Your task to perform on an android device: change keyboard looks Image 0: 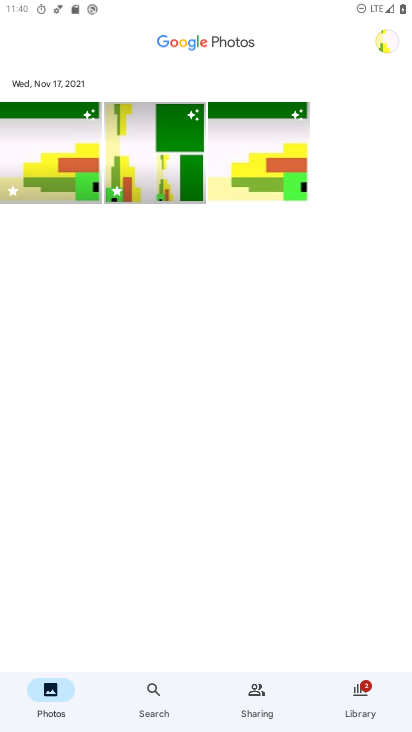
Step 0: press home button
Your task to perform on an android device: change keyboard looks Image 1: 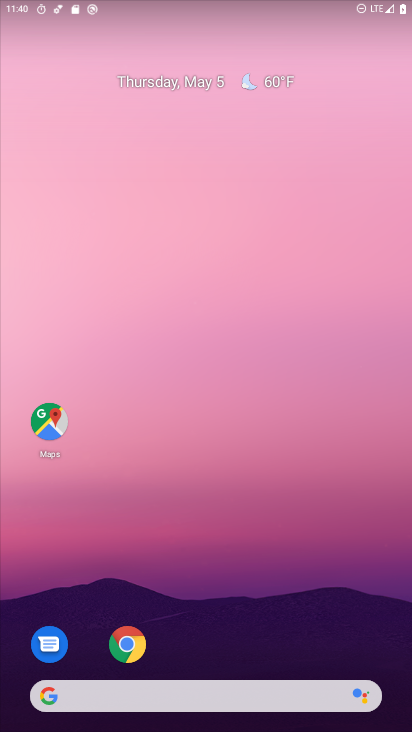
Step 1: drag from (338, 637) to (409, 102)
Your task to perform on an android device: change keyboard looks Image 2: 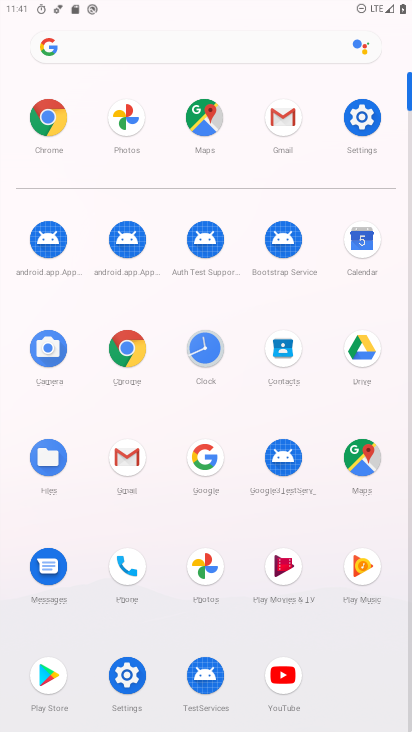
Step 2: click (125, 679)
Your task to perform on an android device: change keyboard looks Image 3: 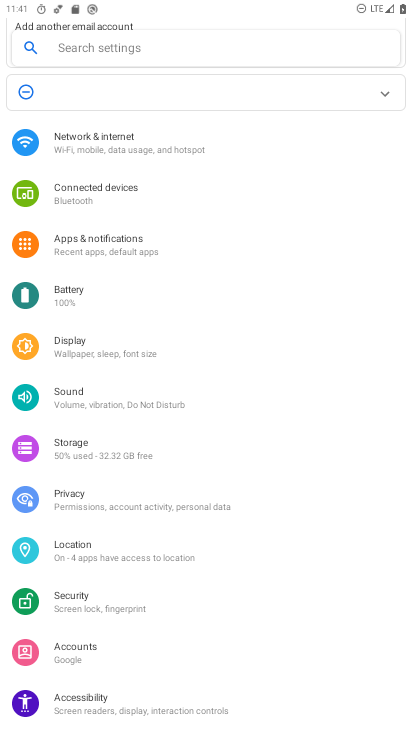
Step 3: drag from (129, 694) to (253, 259)
Your task to perform on an android device: change keyboard looks Image 4: 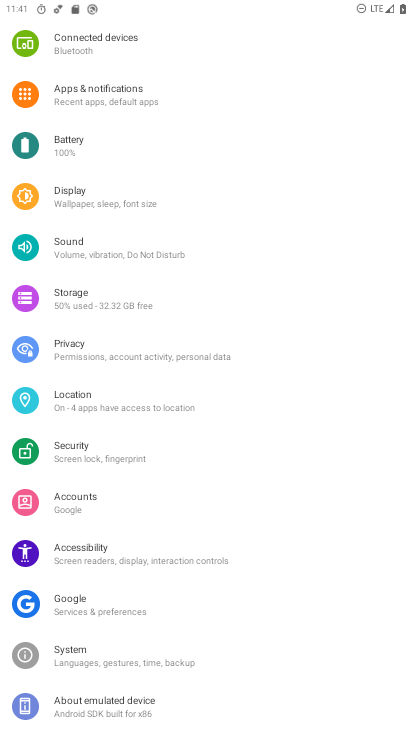
Step 4: click (142, 653)
Your task to perform on an android device: change keyboard looks Image 5: 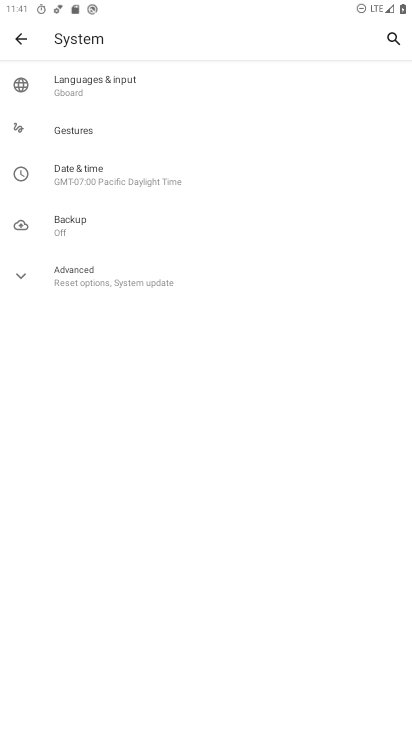
Step 5: click (164, 76)
Your task to perform on an android device: change keyboard looks Image 6: 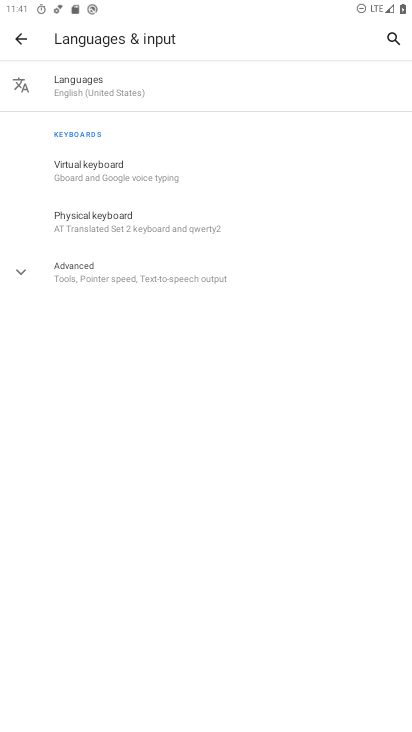
Step 6: click (125, 172)
Your task to perform on an android device: change keyboard looks Image 7: 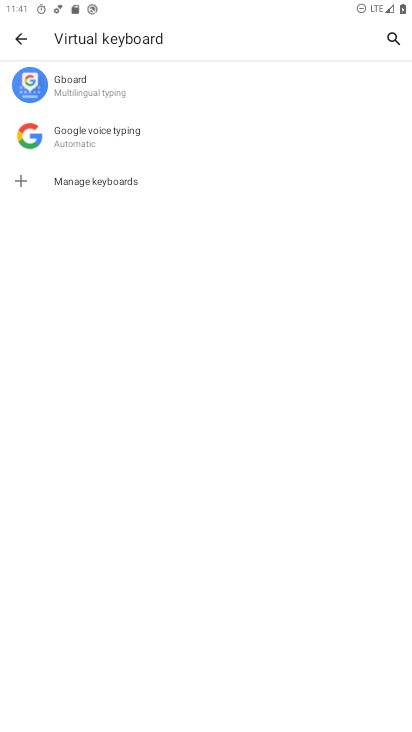
Step 7: click (106, 86)
Your task to perform on an android device: change keyboard looks Image 8: 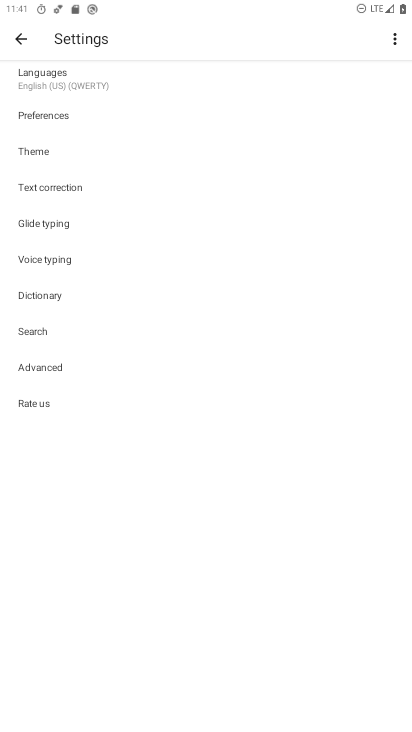
Step 8: click (72, 146)
Your task to perform on an android device: change keyboard looks Image 9: 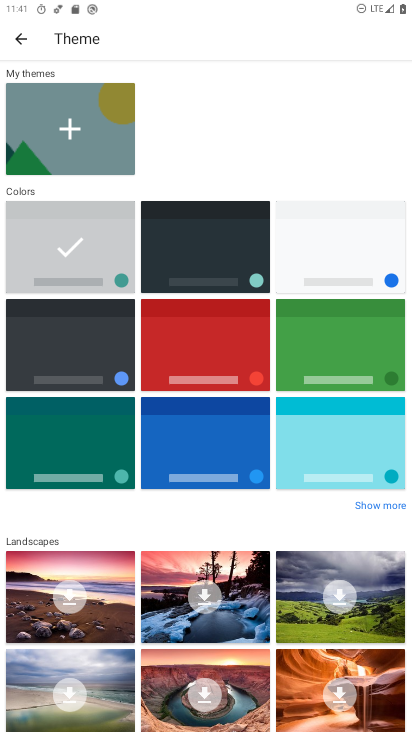
Step 9: click (197, 234)
Your task to perform on an android device: change keyboard looks Image 10: 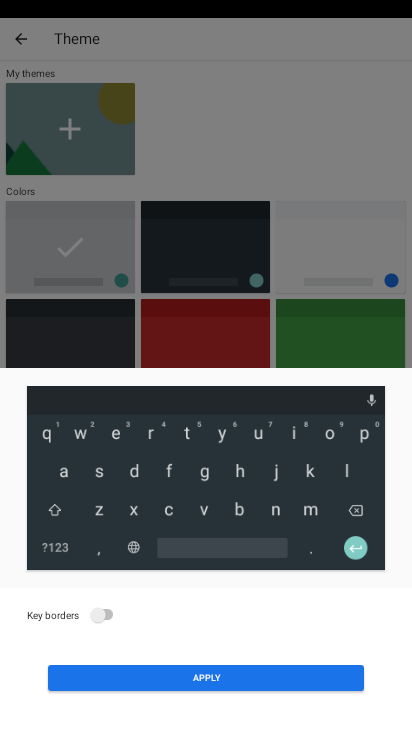
Step 10: click (105, 615)
Your task to perform on an android device: change keyboard looks Image 11: 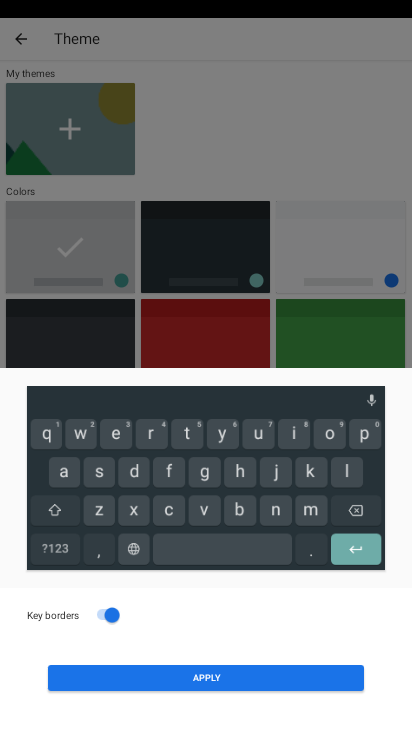
Step 11: click (249, 679)
Your task to perform on an android device: change keyboard looks Image 12: 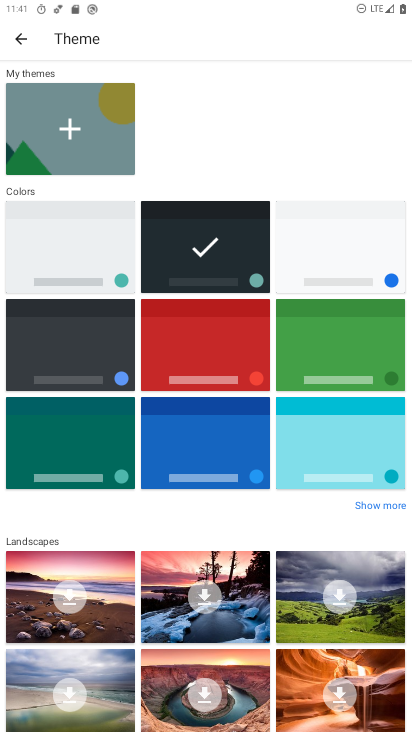
Step 12: task complete